Your task to perform on an android device: Is it going to rain tomorrow? Image 0: 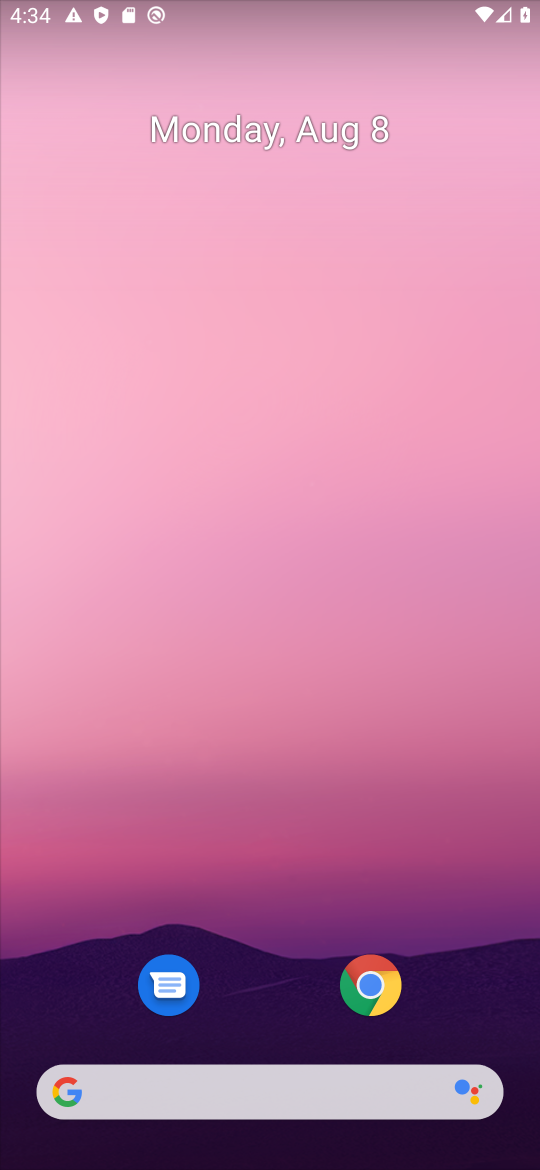
Step 0: drag from (358, 674) to (433, 161)
Your task to perform on an android device: Is it going to rain tomorrow? Image 1: 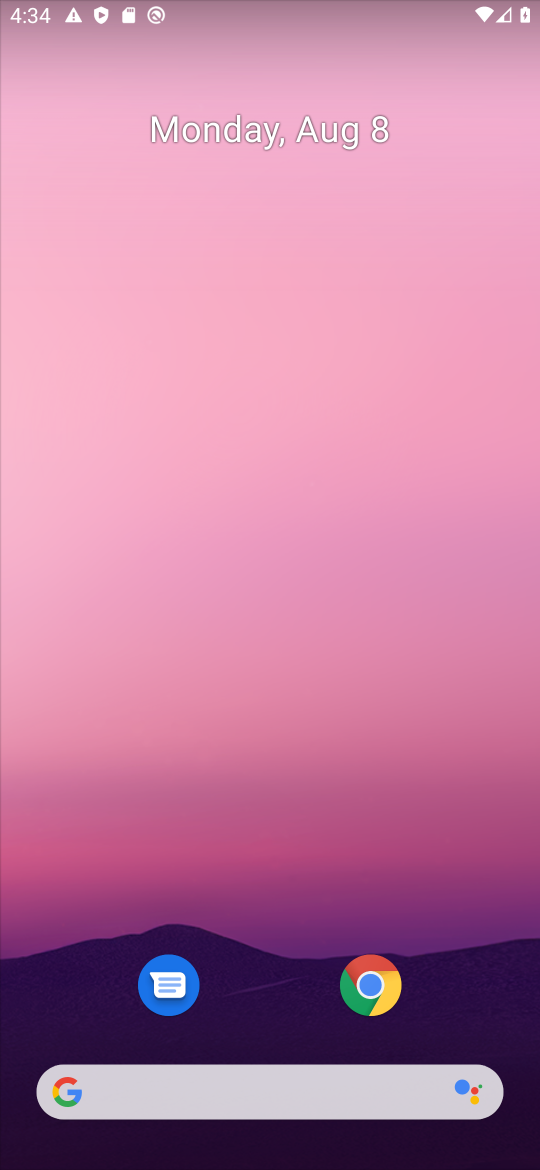
Step 1: drag from (250, 619) to (336, 166)
Your task to perform on an android device: Is it going to rain tomorrow? Image 2: 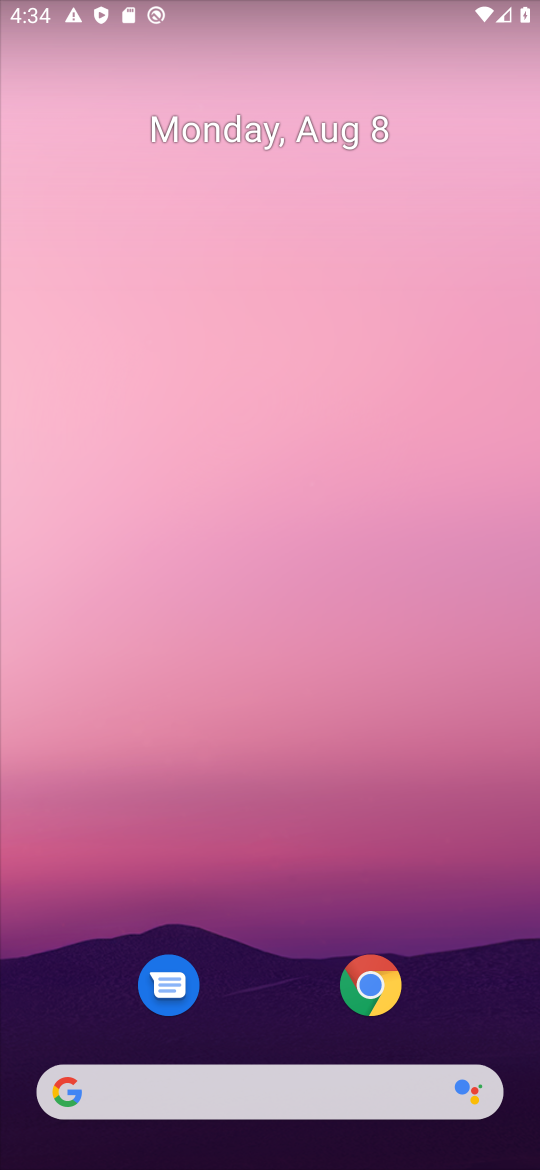
Step 2: drag from (312, 885) to (371, 209)
Your task to perform on an android device: Is it going to rain tomorrow? Image 3: 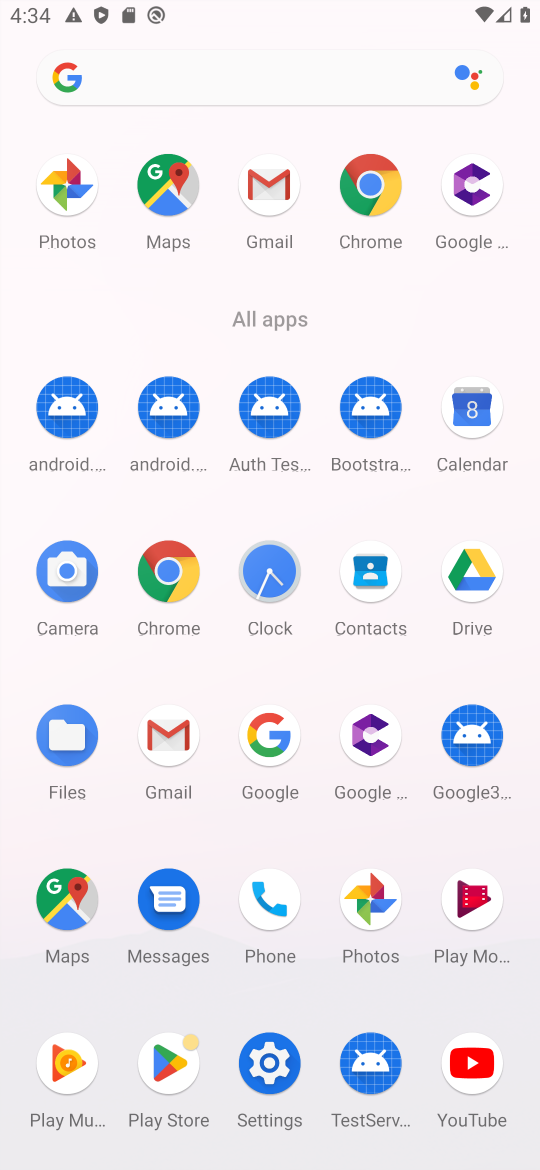
Step 3: type "Is it going to rain tomorrow?"
Your task to perform on an android device: Is it going to rain tomorrow? Image 4: 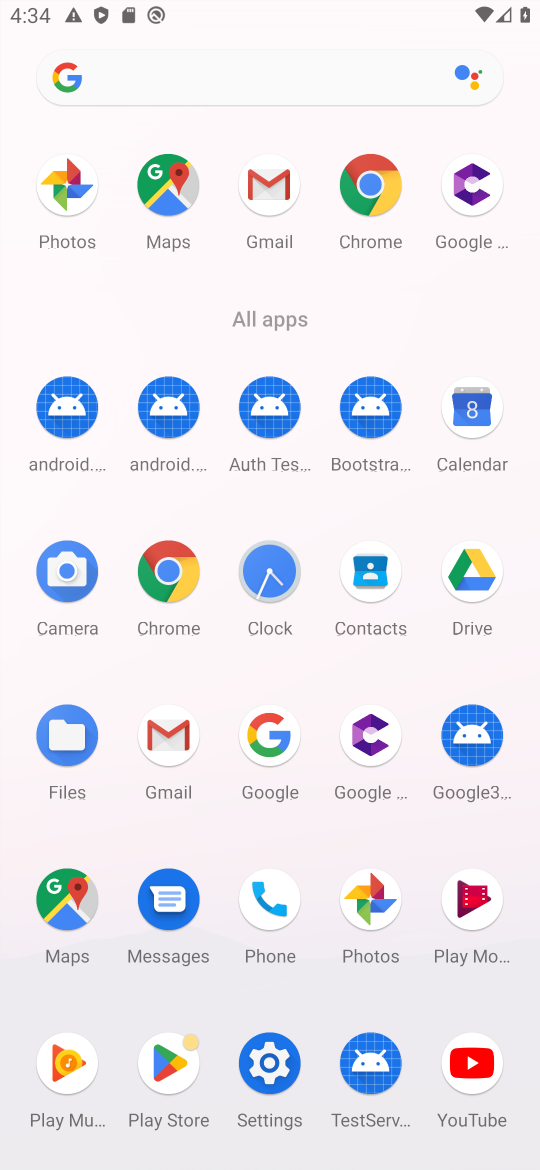
Step 4: click (320, 70)
Your task to perform on an android device: Is it going to rain tomorrow? Image 5: 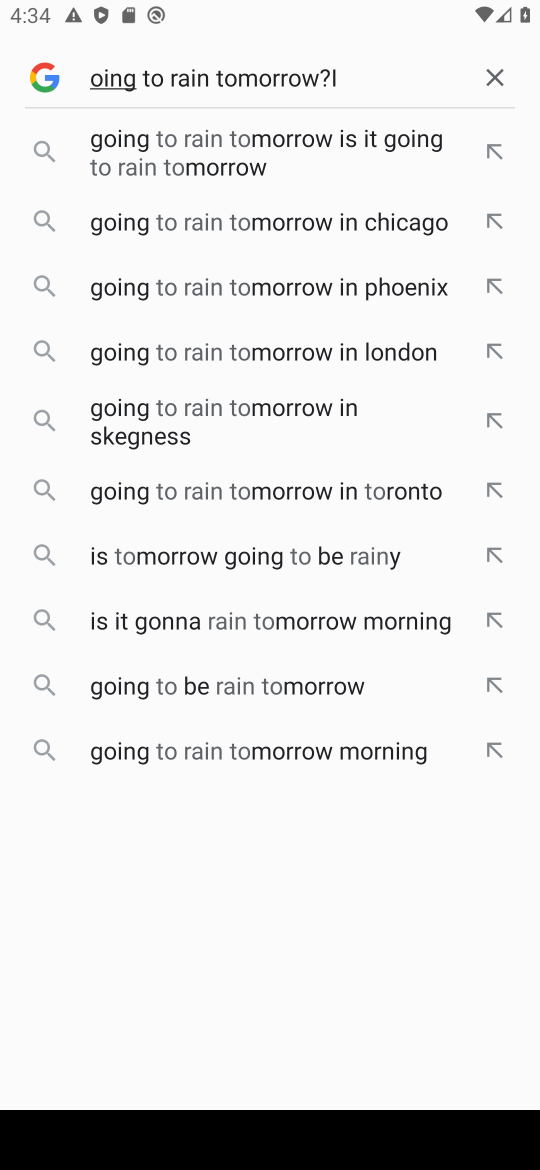
Step 5: press enter
Your task to perform on an android device: Is it going to rain tomorrow? Image 6: 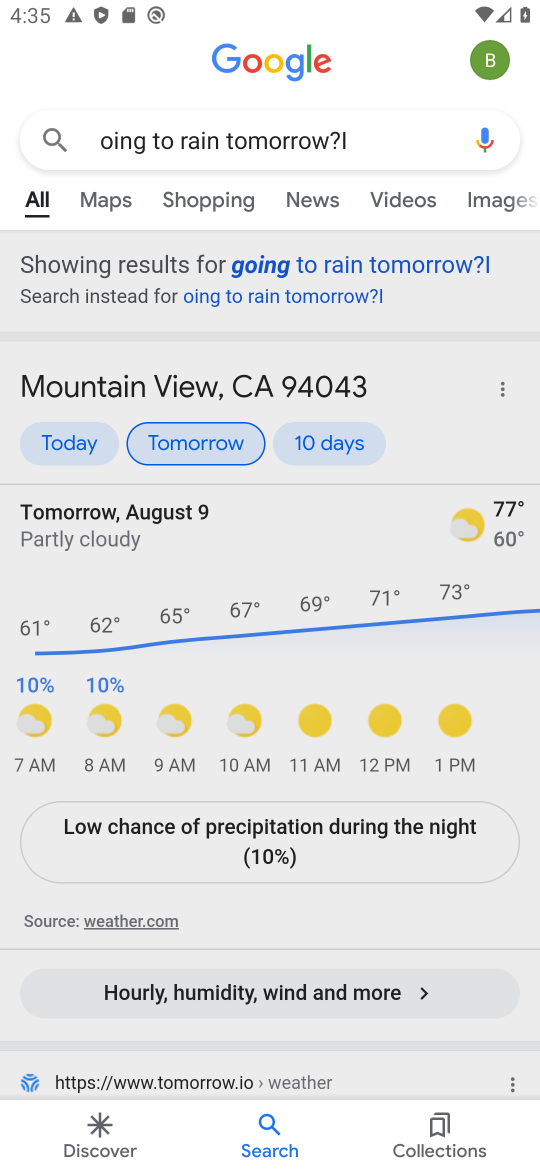
Step 6: task complete